Your task to perform on an android device: When is my next meeting? Image 0: 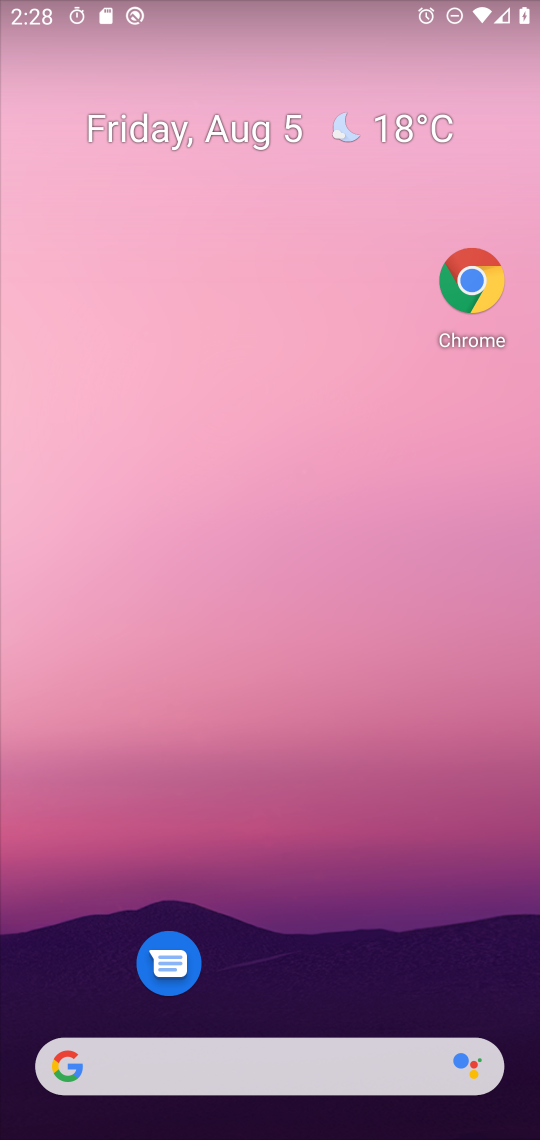
Step 0: drag from (303, 950) to (159, 71)
Your task to perform on an android device: When is my next meeting? Image 1: 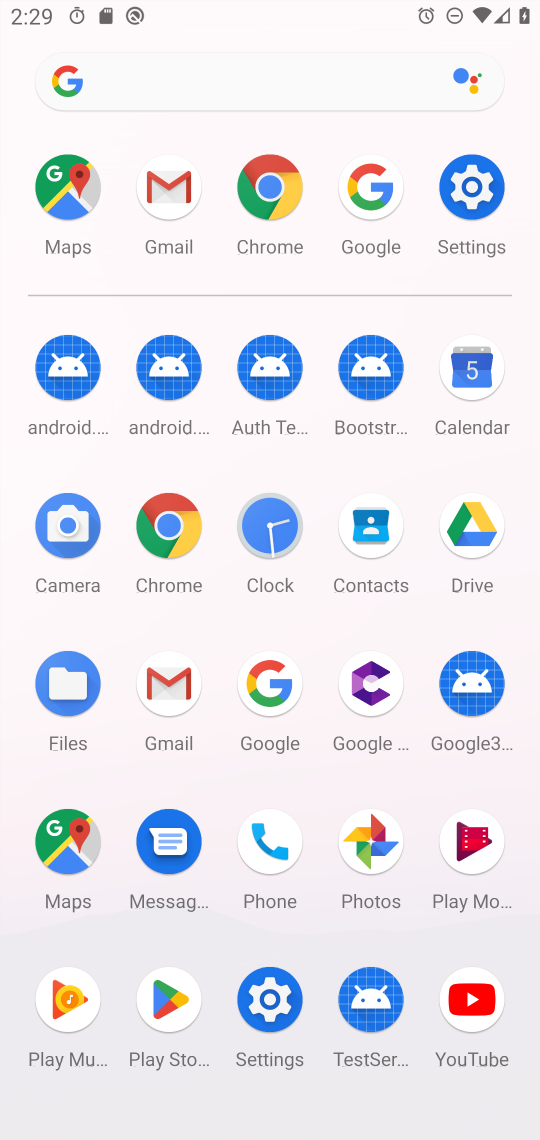
Step 1: click (477, 376)
Your task to perform on an android device: When is my next meeting? Image 2: 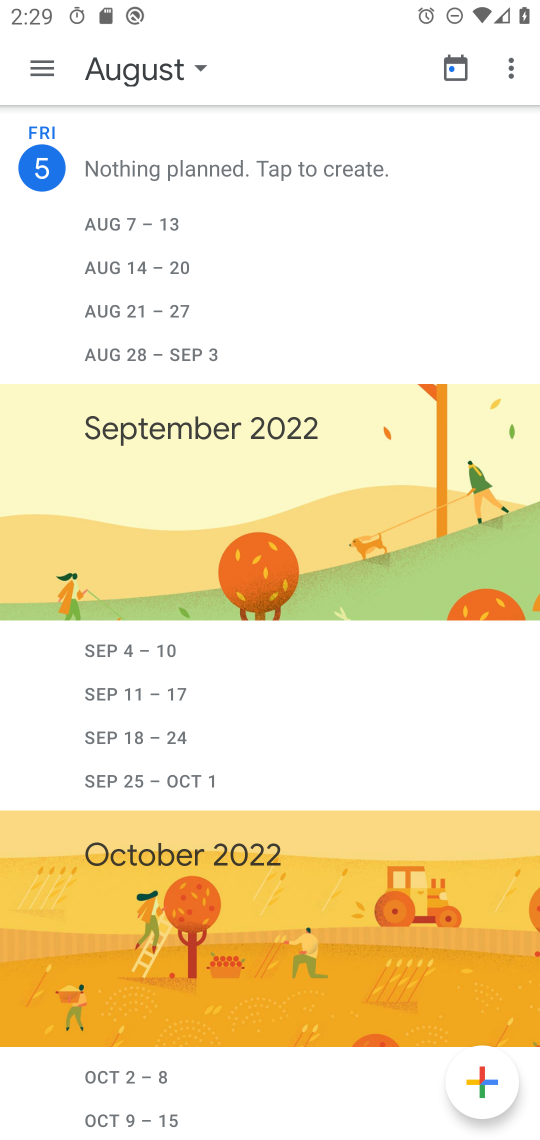
Step 2: click (111, 91)
Your task to perform on an android device: When is my next meeting? Image 3: 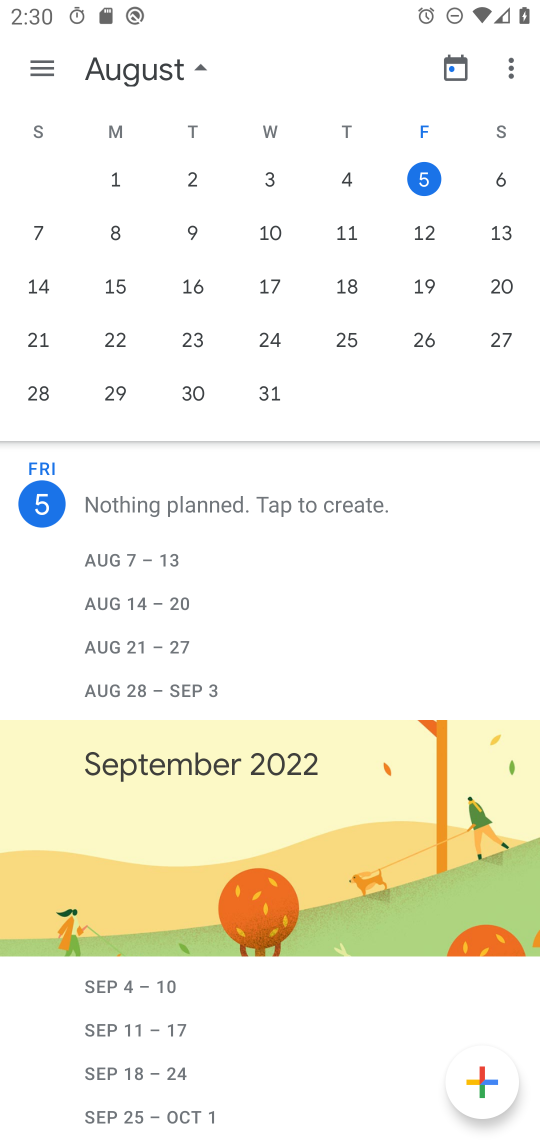
Step 3: task complete